Your task to perform on an android device: What's the weather going to be this weekend? Image 0: 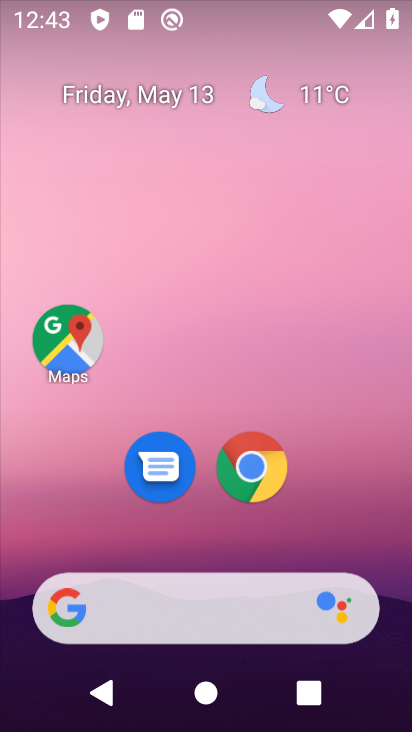
Step 0: click (281, 105)
Your task to perform on an android device: What's the weather going to be this weekend? Image 1: 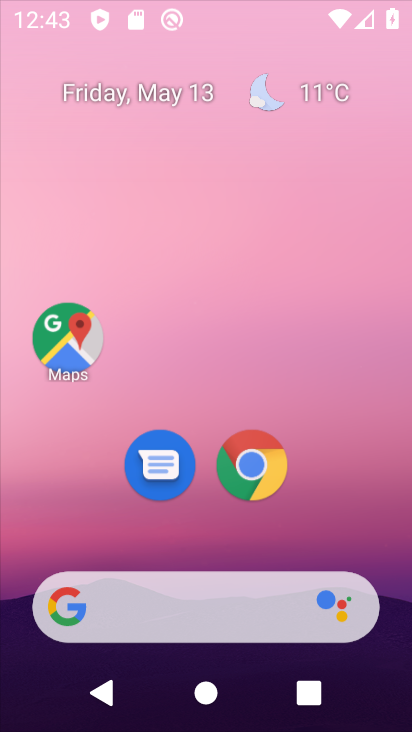
Step 1: click (295, 105)
Your task to perform on an android device: What's the weather going to be this weekend? Image 2: 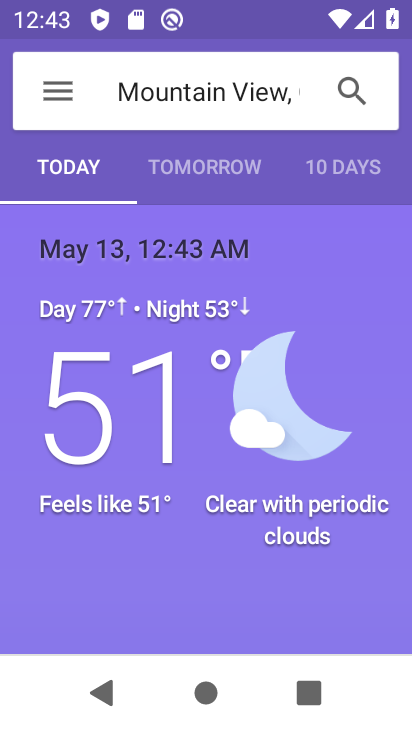
Step 2: click (319, 167)
Your task to perform on an android device: What's the weather going to be this weekend? Image 3: 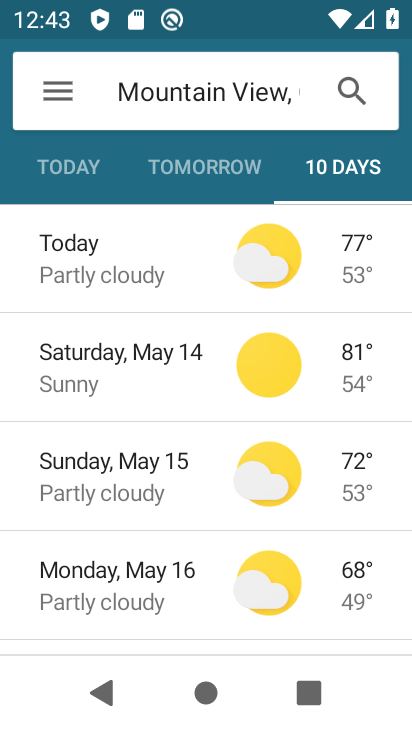
Step 3: task complete